Your task to perform on an android device: change your default location settings in chrome Image 0: 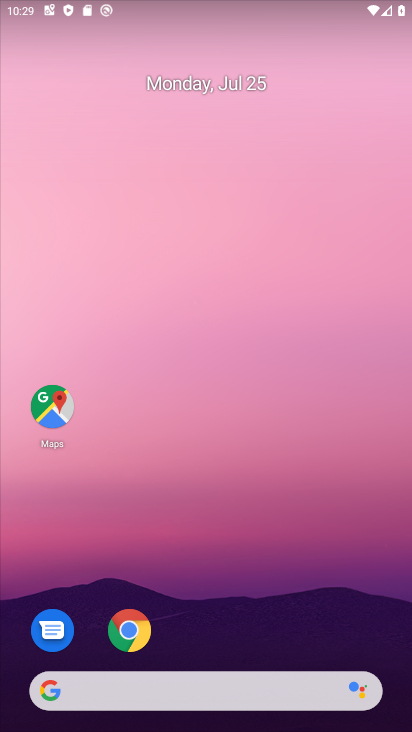
Step 0: press home button
Your task to perform on an android device: change your default location settings in chrome Image 1: 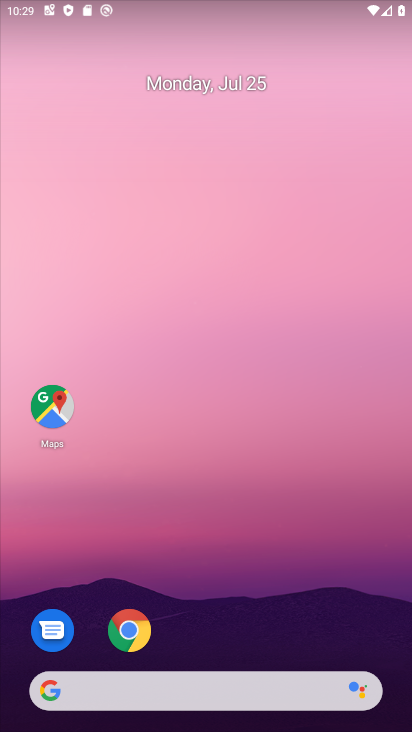
Step 1: drag from (340, 594) to (332, 114)
Your task to perform on an android device: change your default location settings in chrome Image 2: 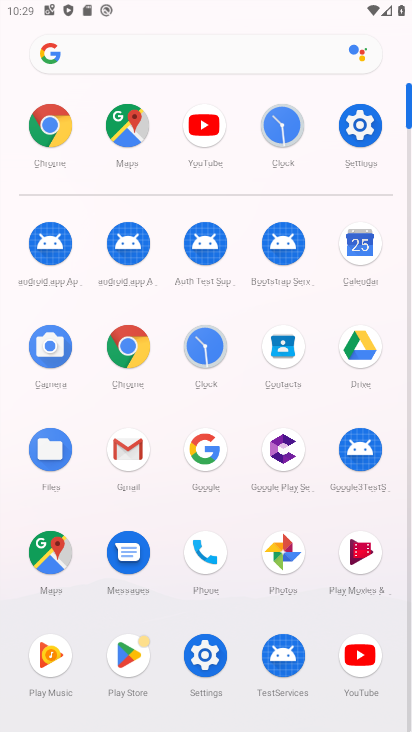
Step 2: click (130, 346)
Your task to perform on an android device: change your default location settings in chrome Image 3: 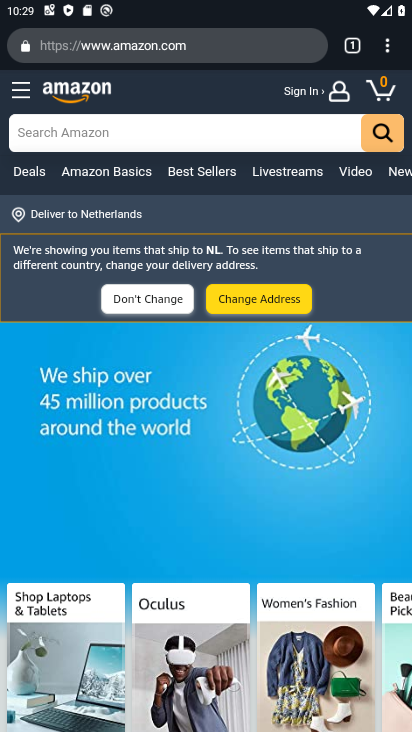
Step 3: click (388, 48)
Your task to perform on an android device: change your default location settings in chrome Image 4: 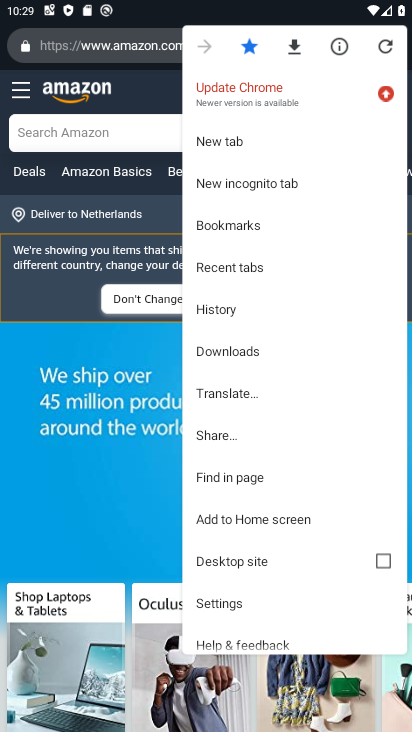
Step 4: drag from (325, 321) to (326, 233)
Your task to perform on an android device: change your default location settings in chrome Image 5: 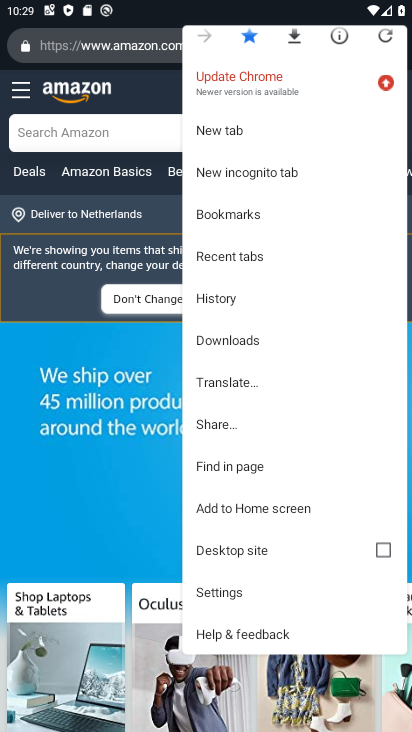
Step 5: click (284, 593)
Your task to perform on an android device: change your default location settings in chrome Image 6: 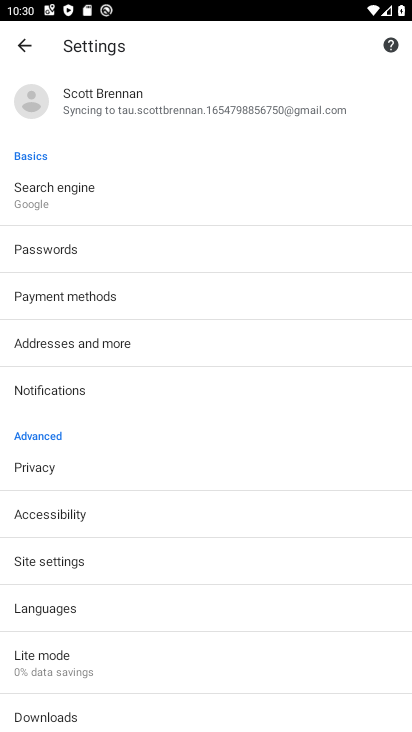
Step 6: drag from (267, 477) to (270, 398)
Your task to perform on an android device: change your default location settings in chrome Image 7: 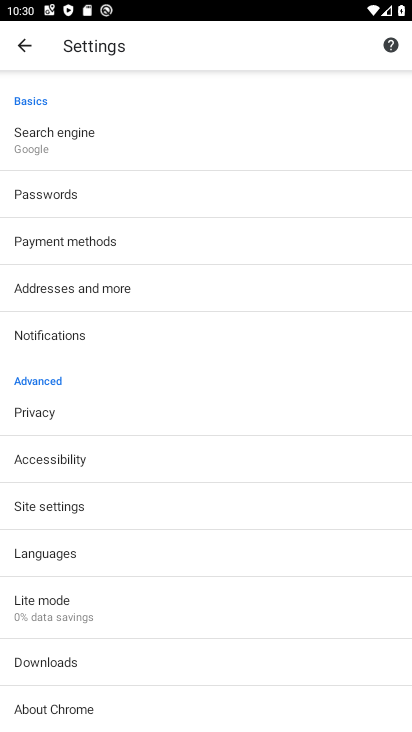
Step 7: drag from (271, 479) to (282, 380)
Your task to perform on an android device: change your default location settings in chrome Image 8: 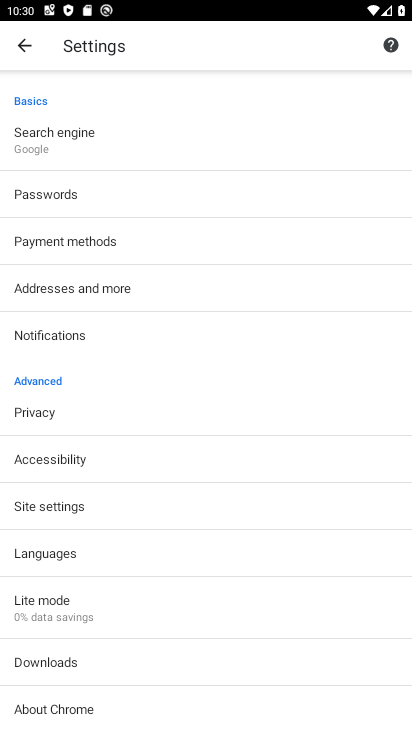
Step 8: click (280, 510)
Your task to perform on an android device: change your default location settings in chrome Image 9: 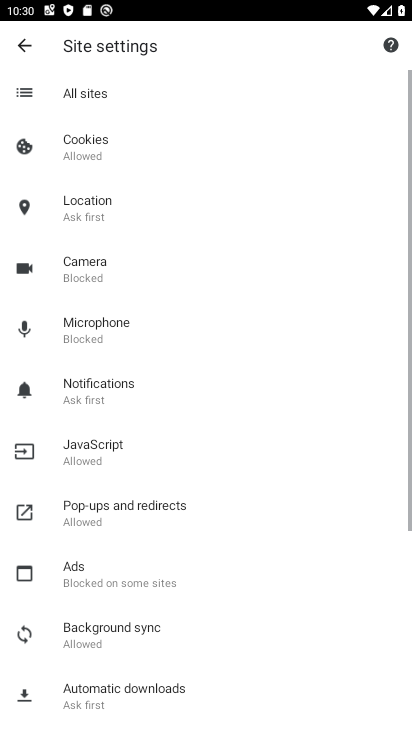
Step 9: drag from (285, 511) to (300, 437)
Your task to perform on an android device: change your default location settings in chrome Image 10: 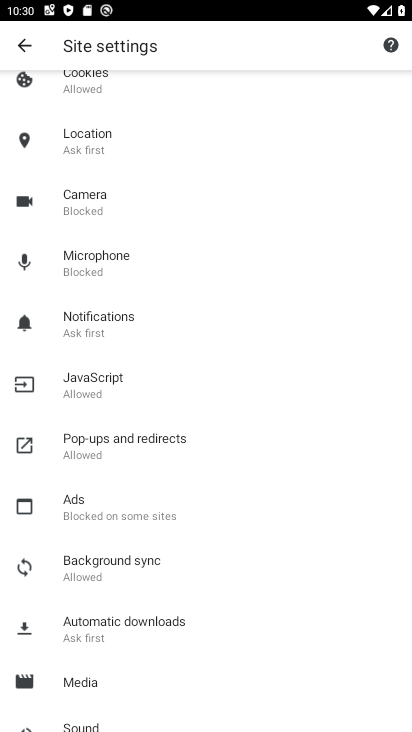
Step 10: drag from (301, 552) to (315, 448)
Your task to perform on an android device: change your default location settings in chrome Image 11: 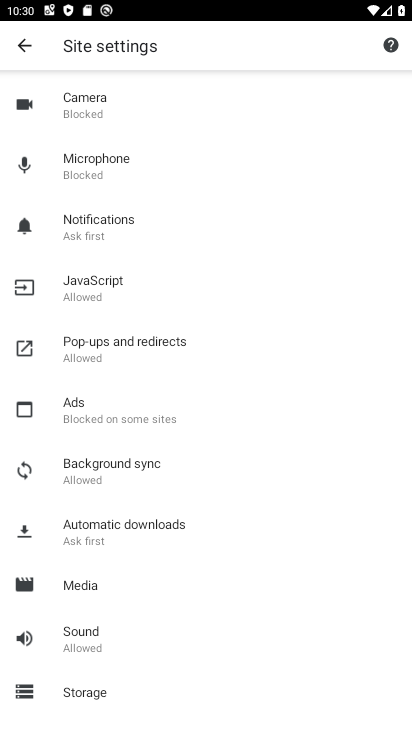
Step 11: drag from (325, 569) to (330, 451)
Your task to perform on an android device: change your default location settings in chrome Image 12: 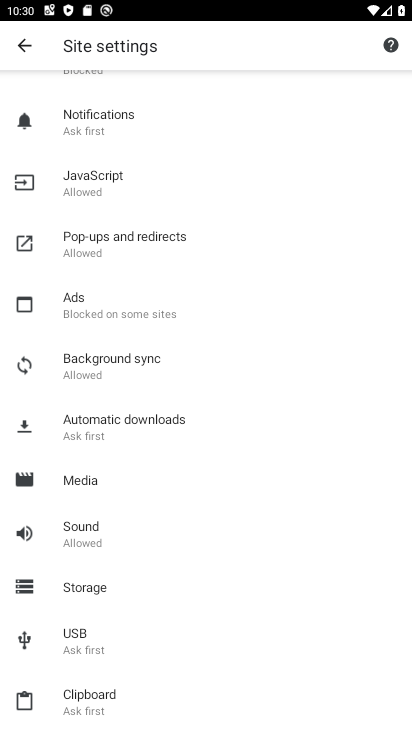
Step 12: drag from (319, 586) to (329, 456)
Your task to perform on an android device: change your default location settings in chrome Image 13: 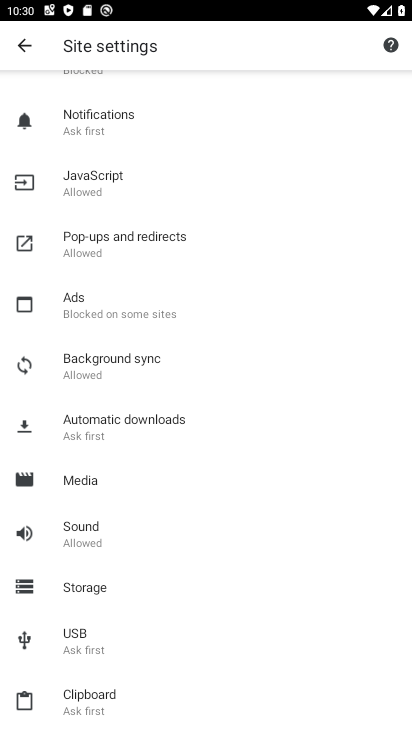
Step 13: drag from (325, 322) to (320, 451)
Your task to perform on an android device: change your default location settings in chrome Image 14: 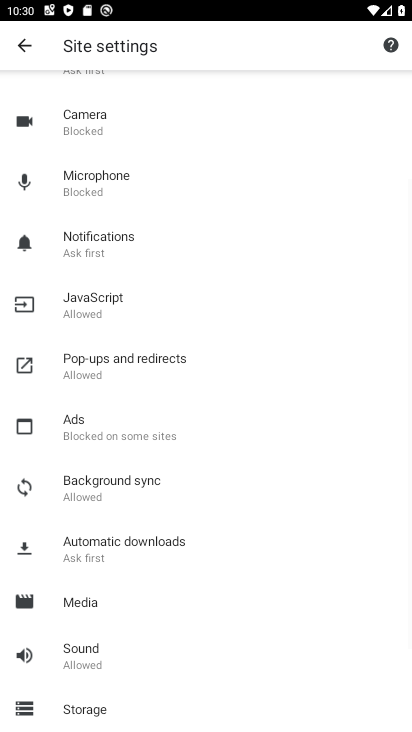
Step 14: drag from (306, 282) to (307, 417)
Your task to perform on an android device: change your default location settings in chrome Image 15: 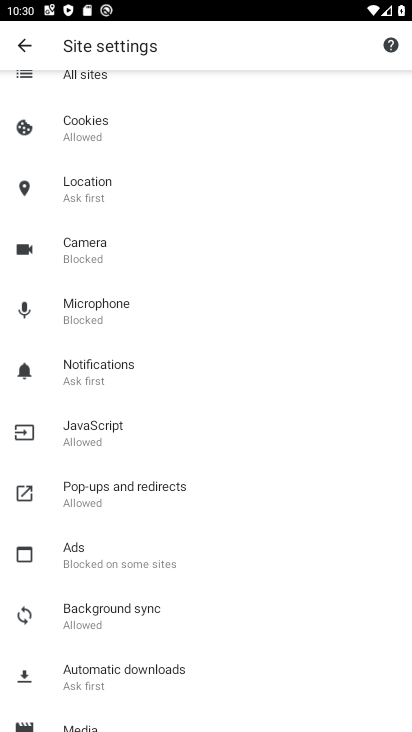
Step 15: drag from (309, 218) to (313, 371)
Your task to perform on an android device: change your default location settings in chrome Image 16: 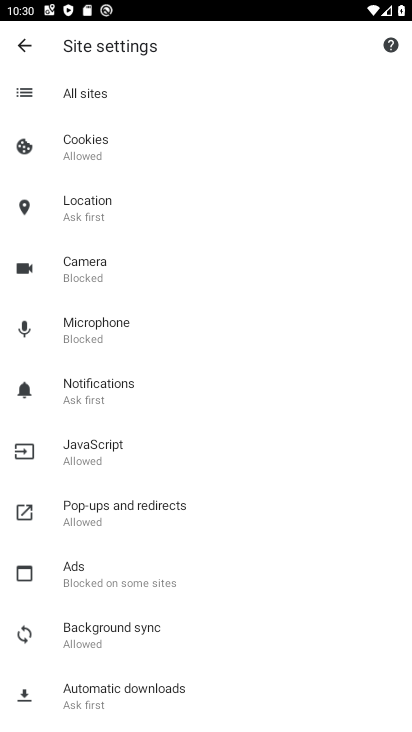
Step 16: click (118, 213)
Your task to perform on an android device: change your default location settings in chrome Image 17: 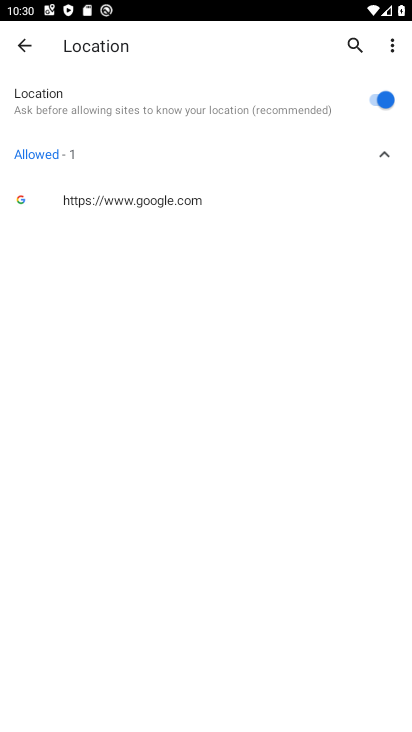
Step 17: click (388, 92)
Your task to perform on an android device: change your default location settings in chrome Image 18: 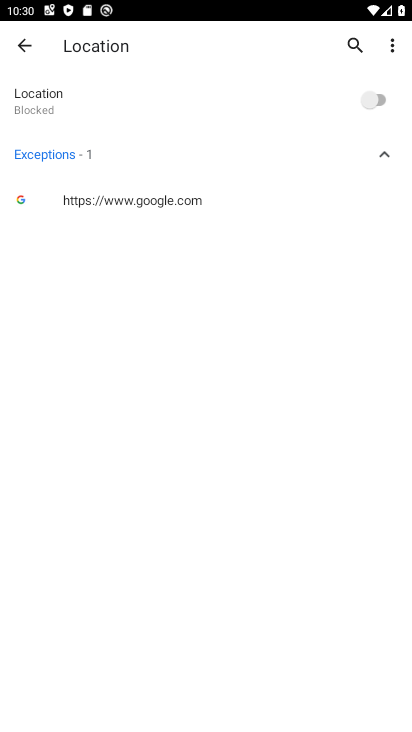
Step 18: task complete